Your task to perform on an android device: Open Yahoo.com Image 0: 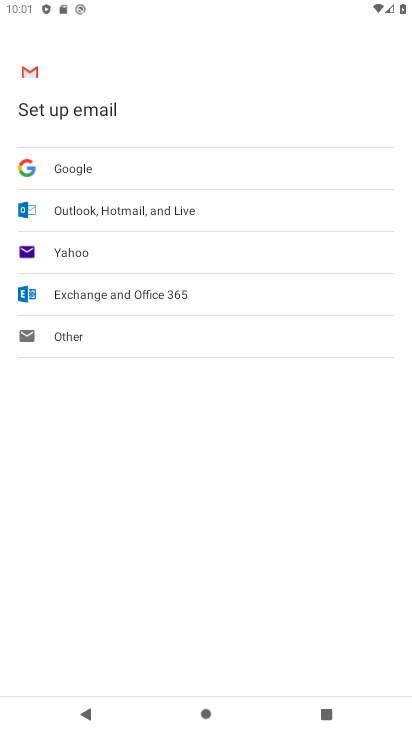
Step 0: press home button
Your task to perform on an android device: Open Yahoo.com Image 1: 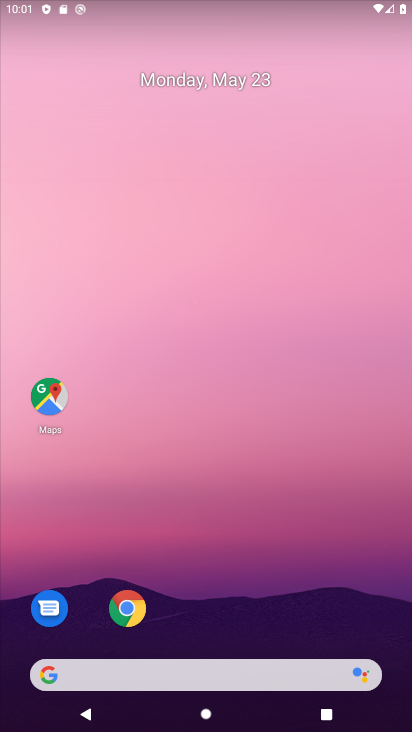
Step 1: click (130, 612)
Your task to perform on an android device: Open Yahoo.com Image 2: 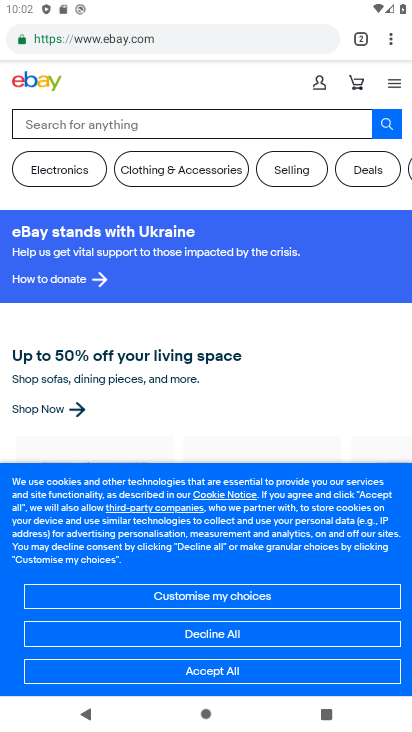
Step 2: drag from (390, 33) to (358, 71)
Your task to perform on an android device: Open Yahoo.com Image 3: 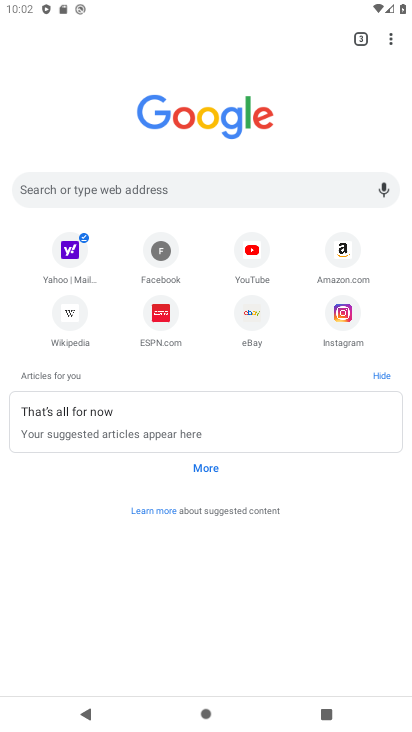
Step 3: click (64, 255)
Your task to perform on an android device: Open Yahoo.com Image 4: 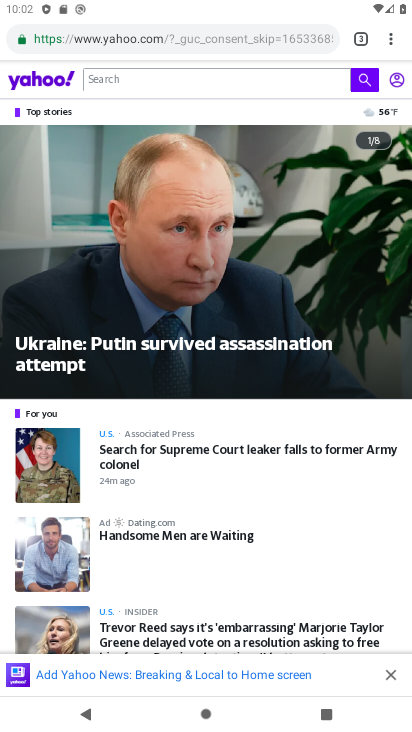
Step 4: task complete